Your task to perform on an android device: What's the weather going to be tomorrow? Image 0: 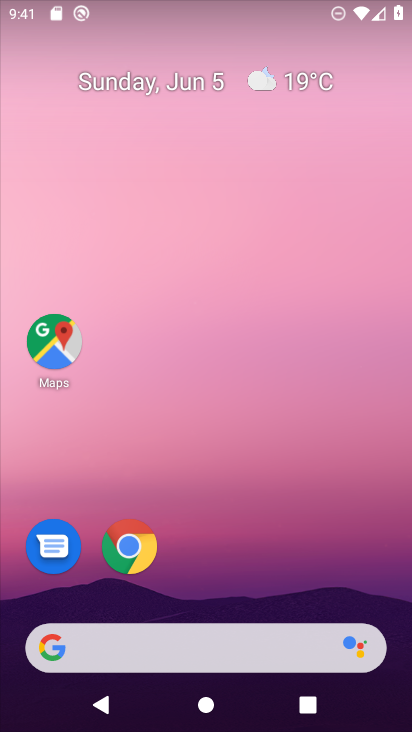
Step 0: click (227, 639)
Your task to perform on an android device: What's the weather going to be tomorrow? Image 1: 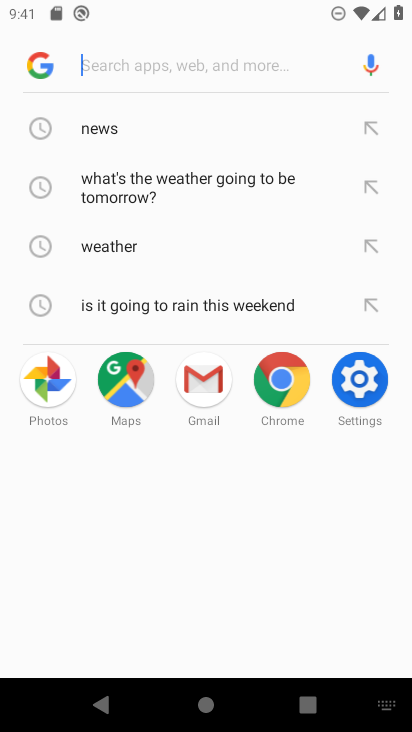
Step 1: click (112, 240)
Your task to perform on an android device: What's the weather going to be tomorrow? Image 2: 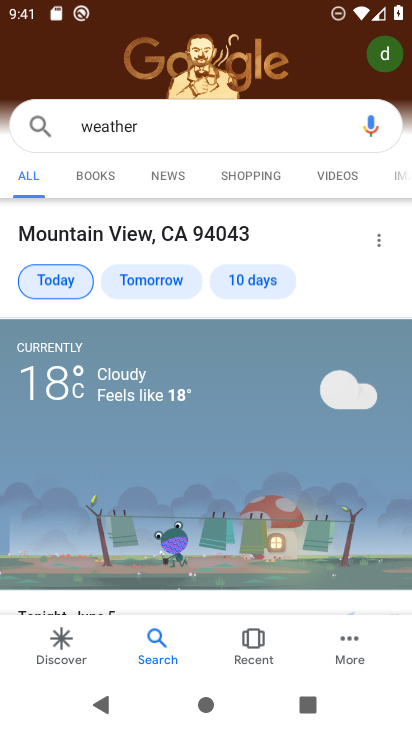
Step 2: click (162, 271)
Your task to perform on an android device: What's the weather going to be tomorrow? Image 3: 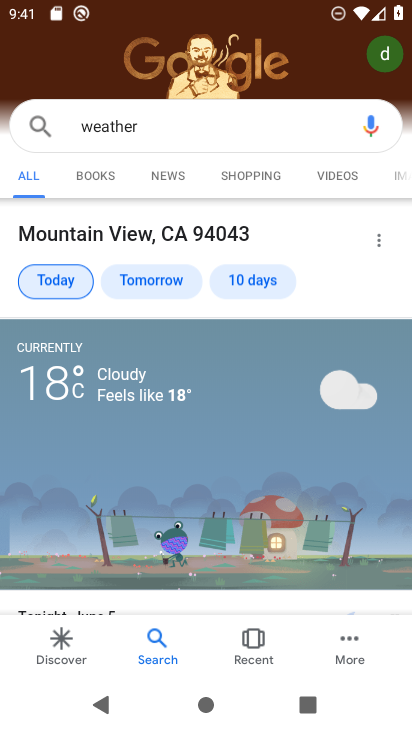
Step 3: click (162, 271)
Your task to perform on an android device: What's the weather going to be tomorrow? Image 4: 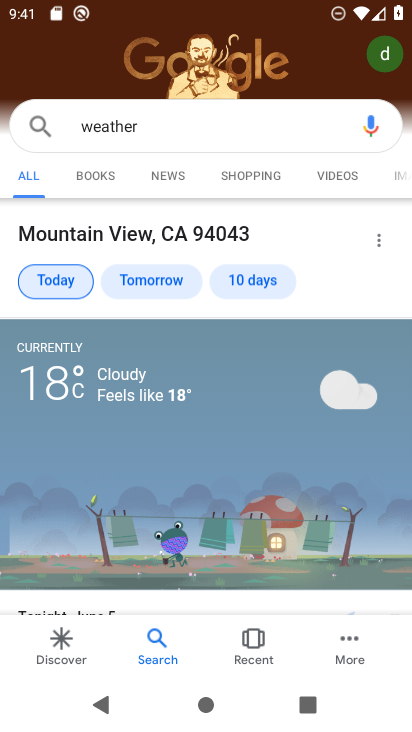
Step 4: click (162, 271)
Your task to perform on an android device: What's the weather going to be tomorrow? Image 5: 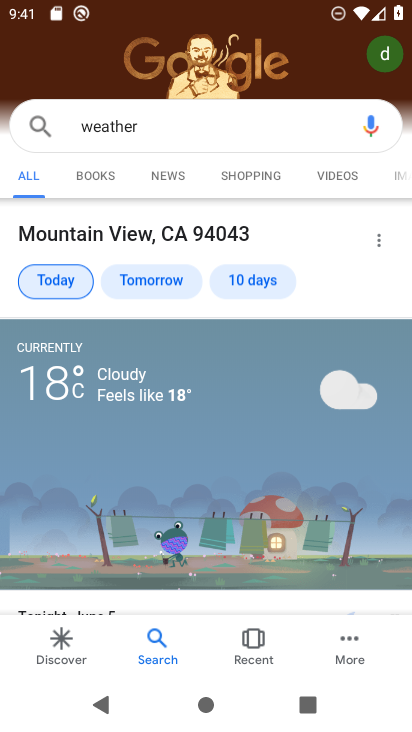
Step 5: click (157, 280)
Your task to perform on an android device: What's the weather going to be tomorrow? Image 6: 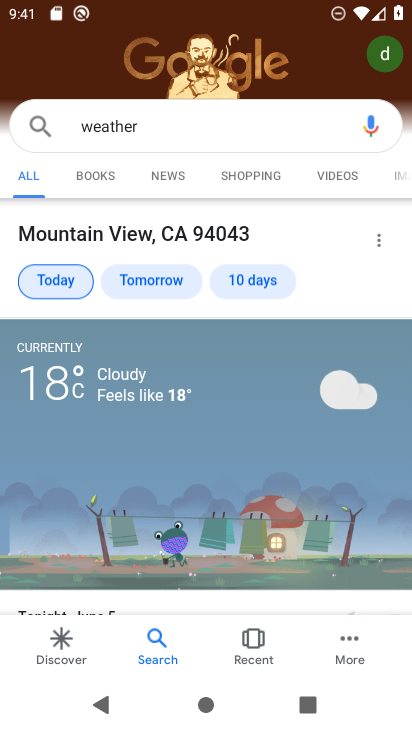
Step 6: click (157, 280)
Your task to perform on an android device: What's the weather going to be tomorrow? Image 7: 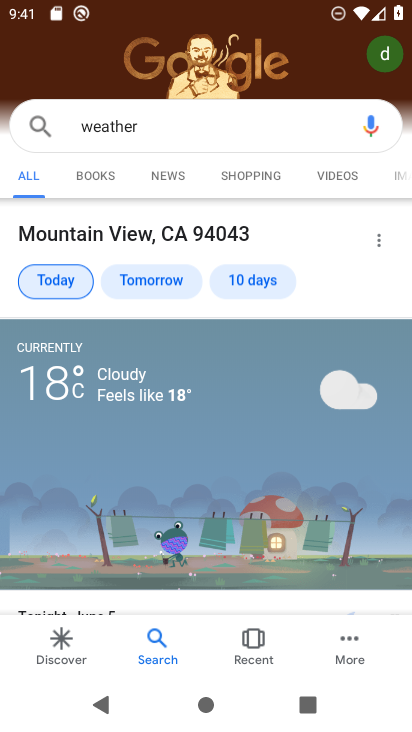
Step 7: click (157, 280)
Your task to perform on an android device: What's the weather going to be tomorrow? Image 8: 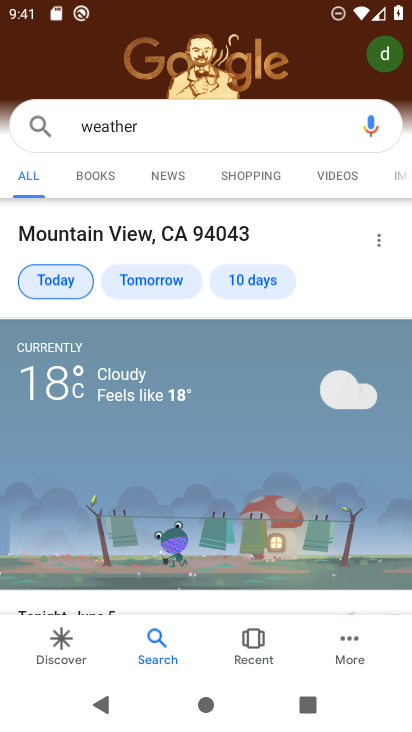
Step 8: task complete